Your task to perform on an android device: Open notification settings Image 0: 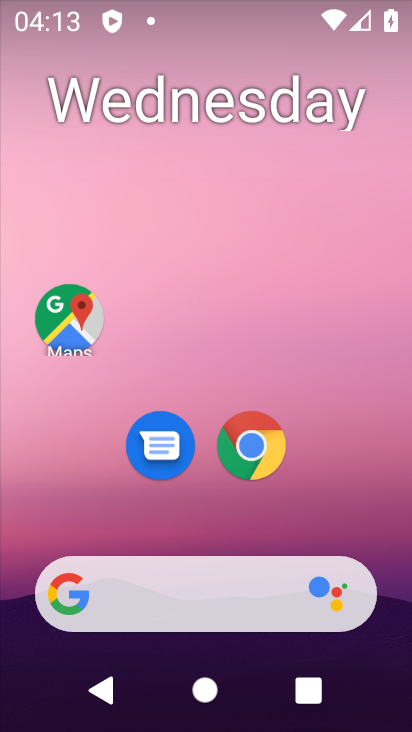
Step 0: drag from (208, 522) to (279, 33)
Your task to perform on an android device: Open notification settings Image 1: 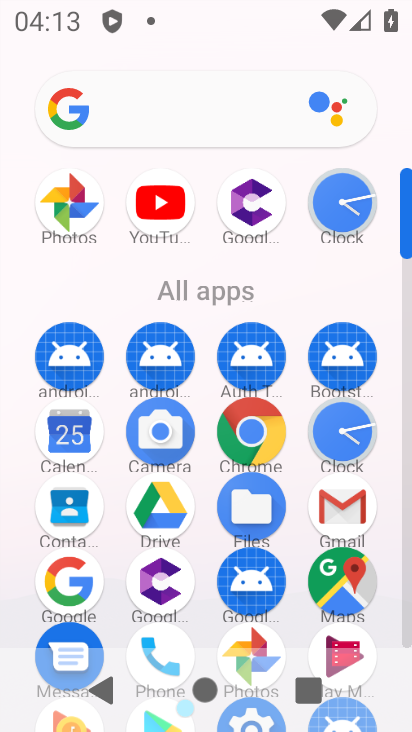
Step 1: drag from (204, 611) to (250, 160)
Your task to perform on an android device: Open notification settings Image 2: 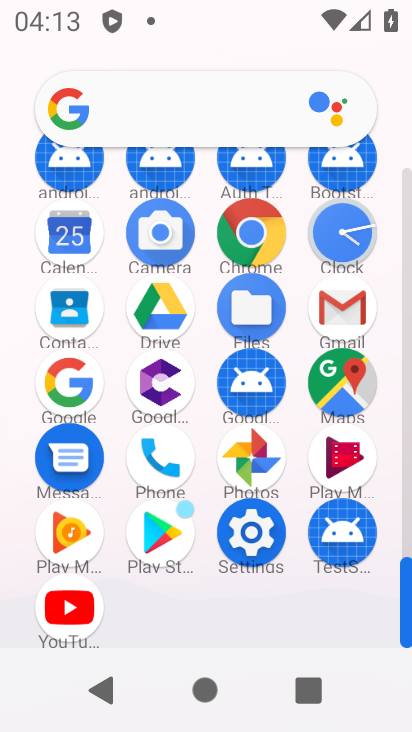
Step 2: click (248, 536)
Your task to perform on an android device: Open notification settings Image 3: 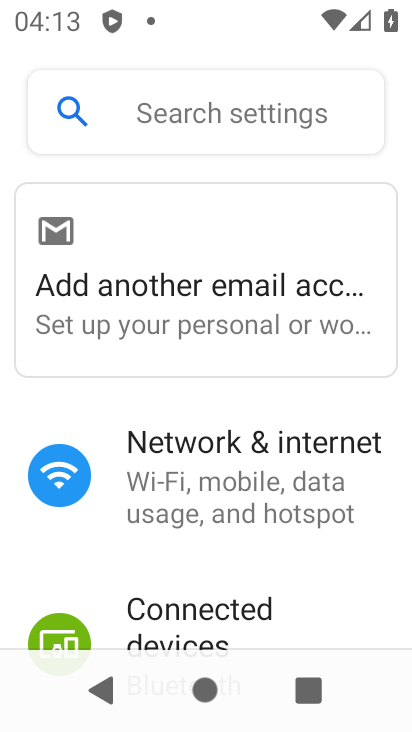
Step 3: drag from (190, 569) to (247, 70)
Your task to perform on an android device: Open notification settings Image 4: 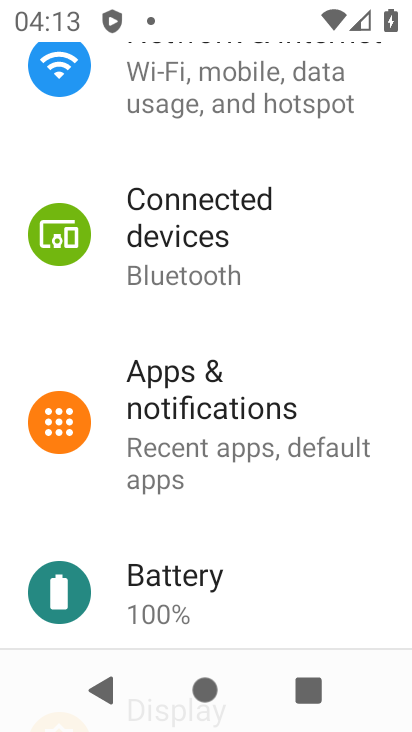
Step 4: click (218, 392)
Your task to perform on an android device: Open notification settings Image 5: 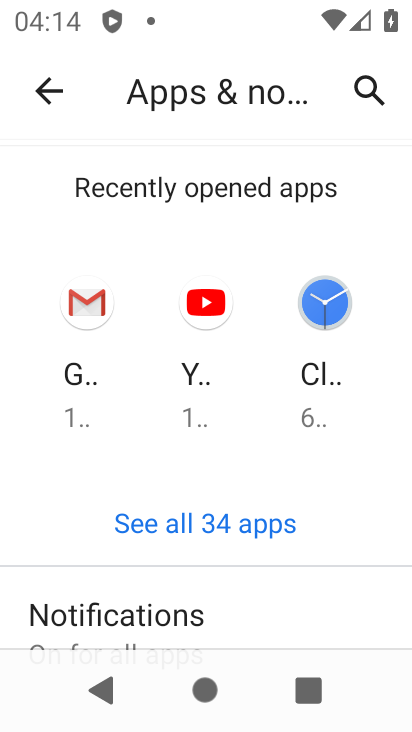
Step 5: click (120, 592)
Your task to perform on an android device: Open notification settings Image 6: 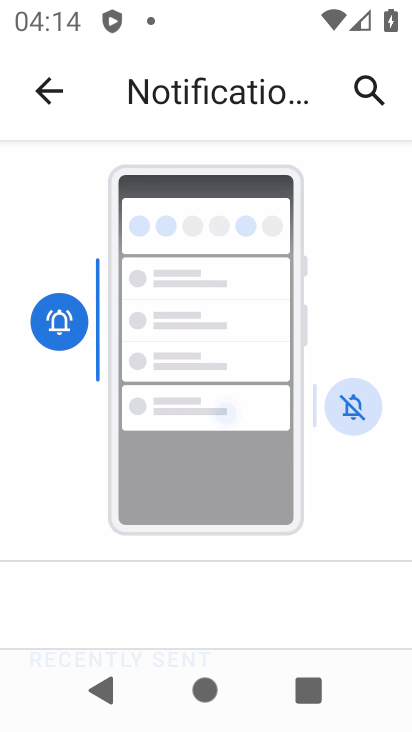
Step 6: task complete